Your task to perform on an android device: turn on improve location accuracy Image 0: 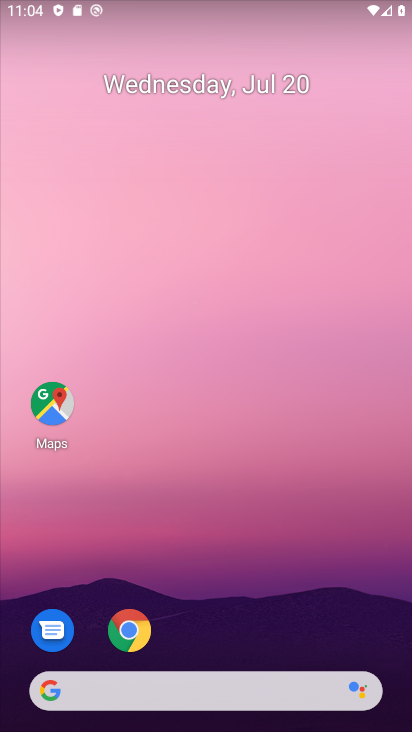
Step 0: press home button
Your task to perform on an android device: turn on improve location accuracy Image 1: 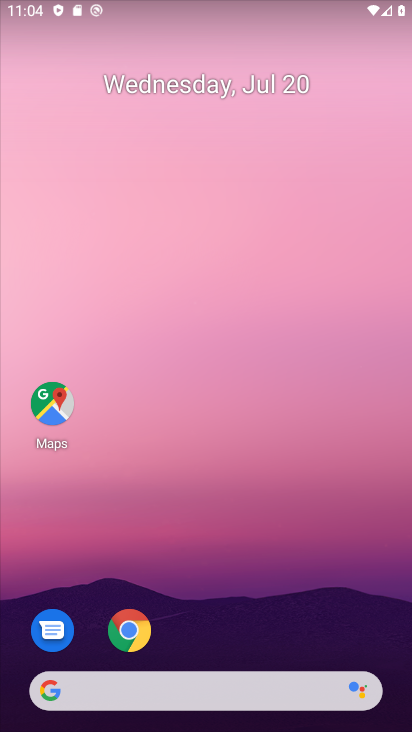
Step 1: drag from (210, 654) to (193, 3)
Your task to perform on an android device: turn on improve location accuracy Image 2: 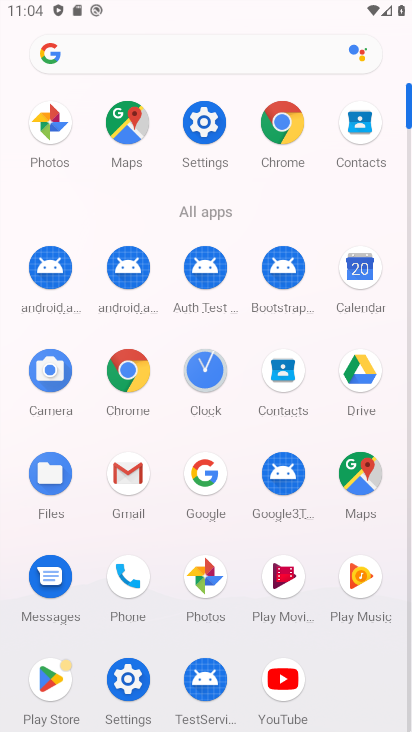
Step 2: click (202, 118)
Your task to perform on an android device: turn on improve location accuracy Image 3: 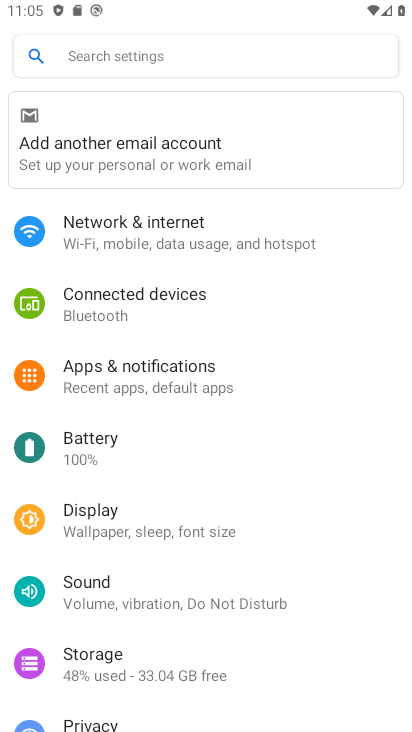
Step 3: drag from (147, 682) to (142, 143)
Your task to perform on an android device: turn on improve location accuracy Image 4: 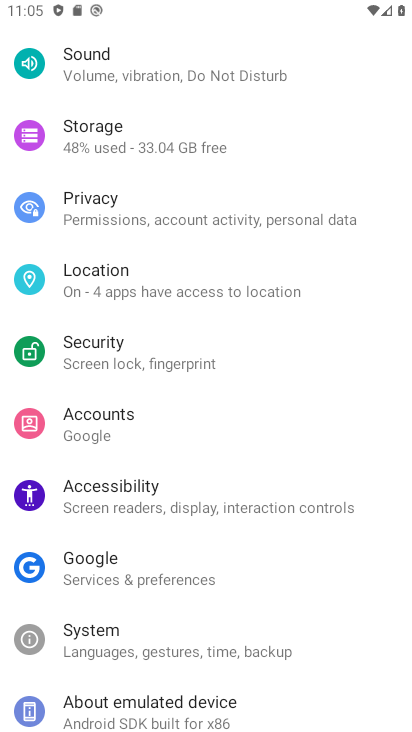
Step 4: click (145, 278)
Your task to perform on an android device: turn on improve location accuracy Image 5: 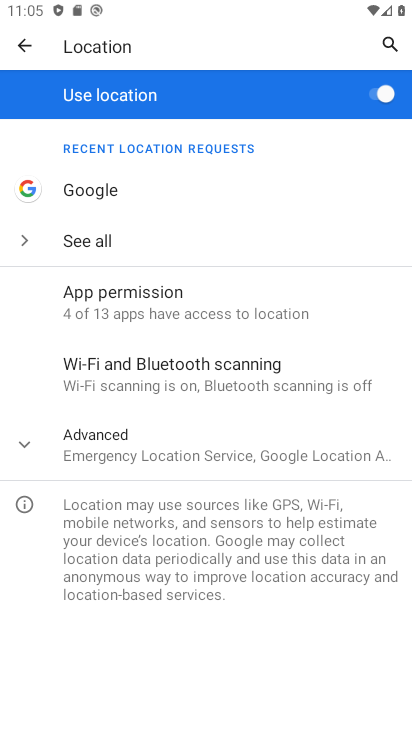
Step 5: click (25, 440)
Your task to perform on an android device: turn on improve location accuracy Image 6: 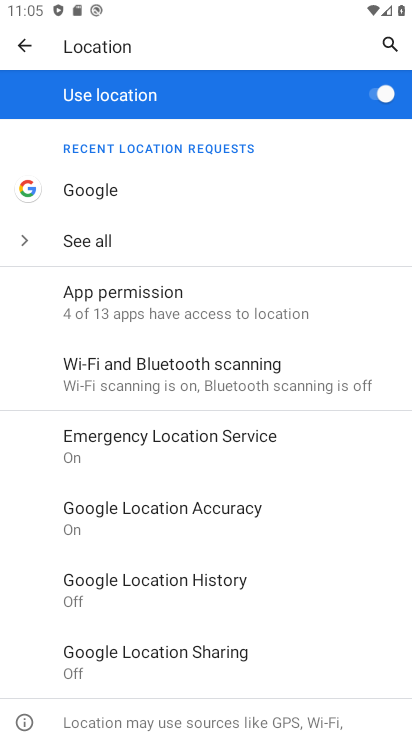
Step 6: click (122, 520)
Your task to perform on an android device: turn on improve location accuracy Image 7: 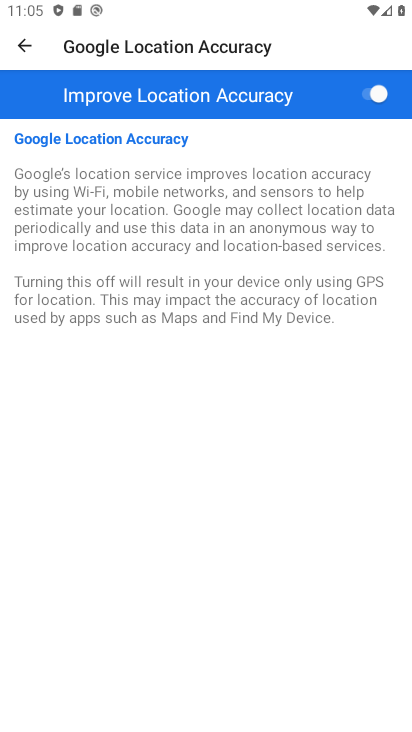
Step 7: task complete